Your task to perform on an android device: What's the weather going to be tomorrow? Image 0: 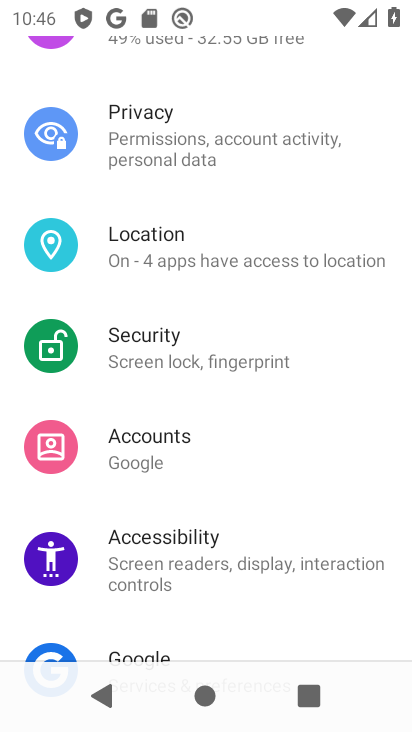
Step 0: press home button
Your task to perform on an android device: What's the weather going to be tomorrow? Image 1: 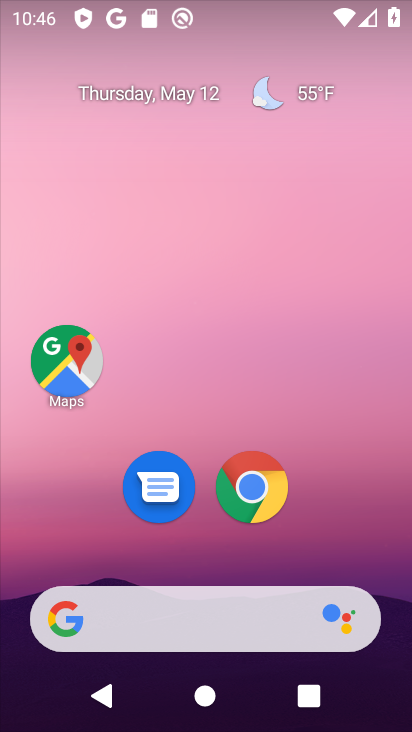
Step 1: click (312, 102)
Your task to perform on an android device: What's the weather going to be tomorrow? Image 2: 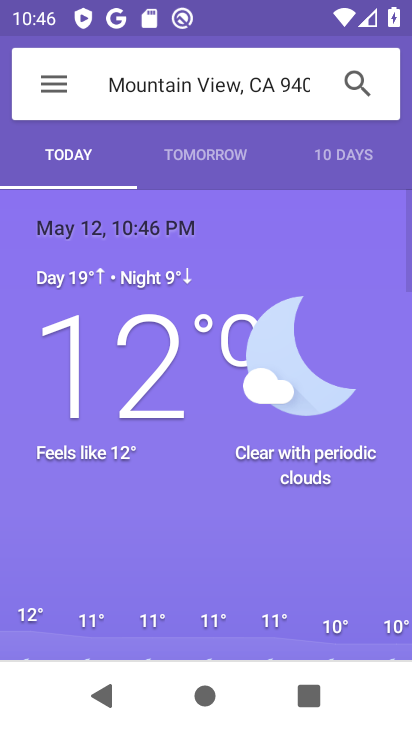
Step 2: click (194, 163)
Your task to perform on an android device: What's the weather going to be tomorrow? Image 3: 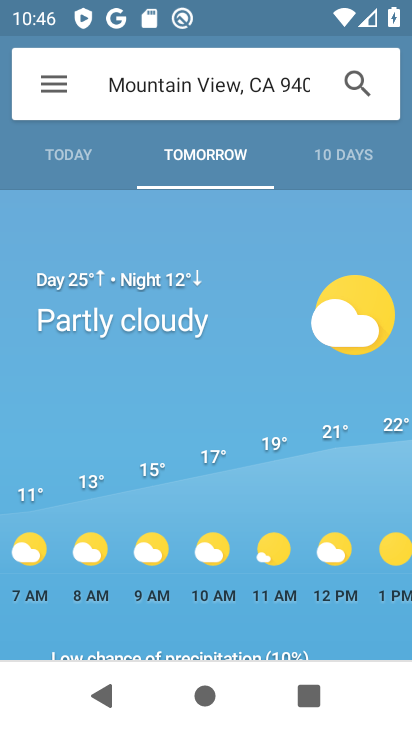
Step 3: task complete